Your task to perform on an android device: What's the news in India? Image 0: 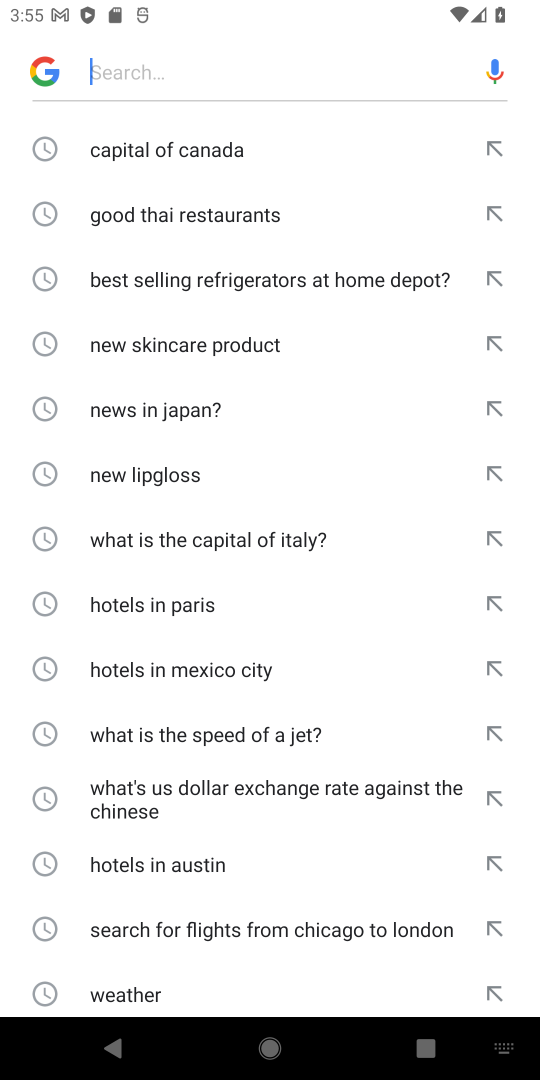
Step 0: click (135, 70)
Your task to perform on an android device: What's the news in India? Image 1: 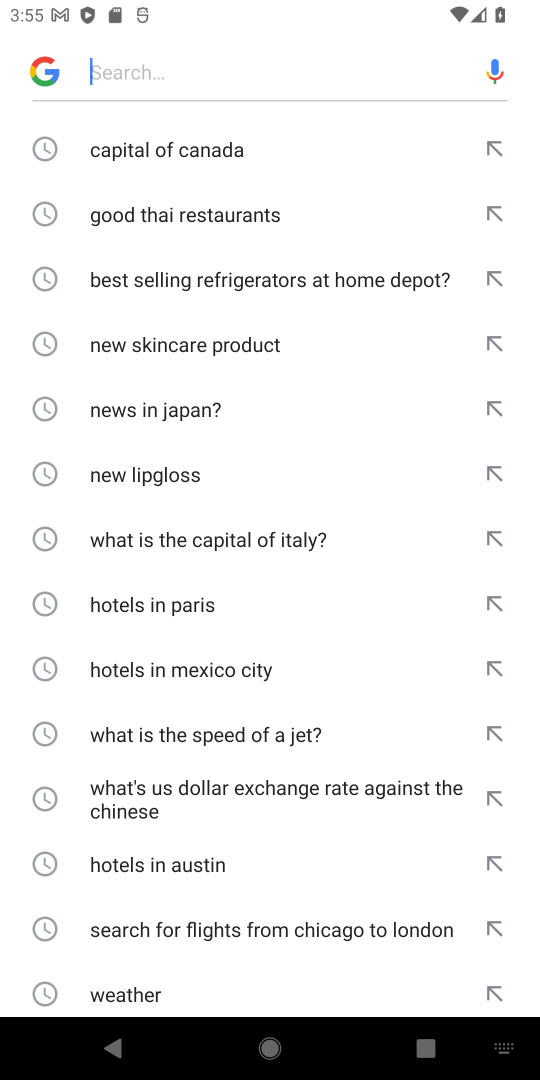
Step 1: type "What's the news in India?"
Your task to perform on an android device: What's the news in India? Image 2: 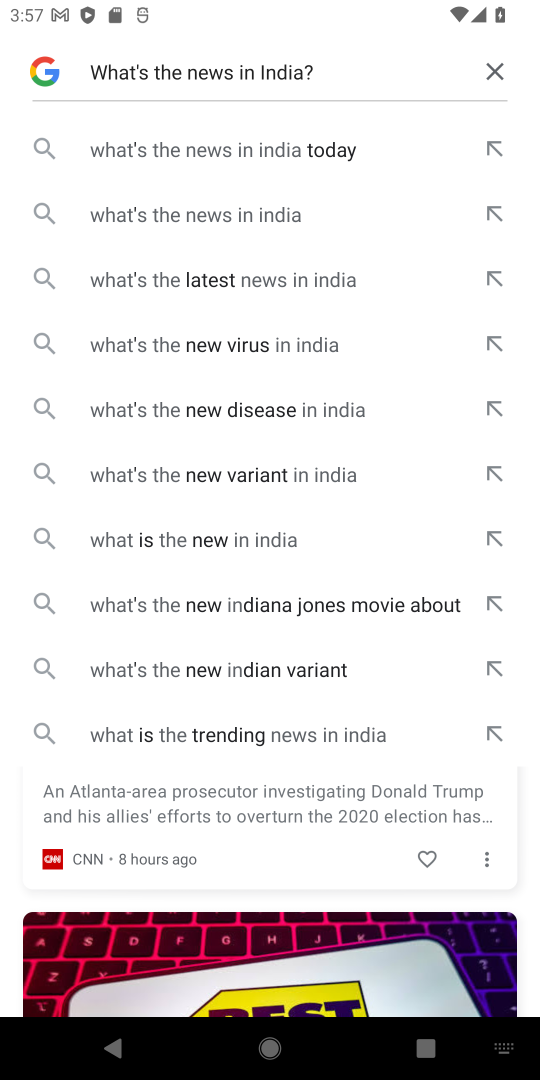
Step 2: click (238, 144)
Your task to perform on an android device: What's the news in India? Image 3: 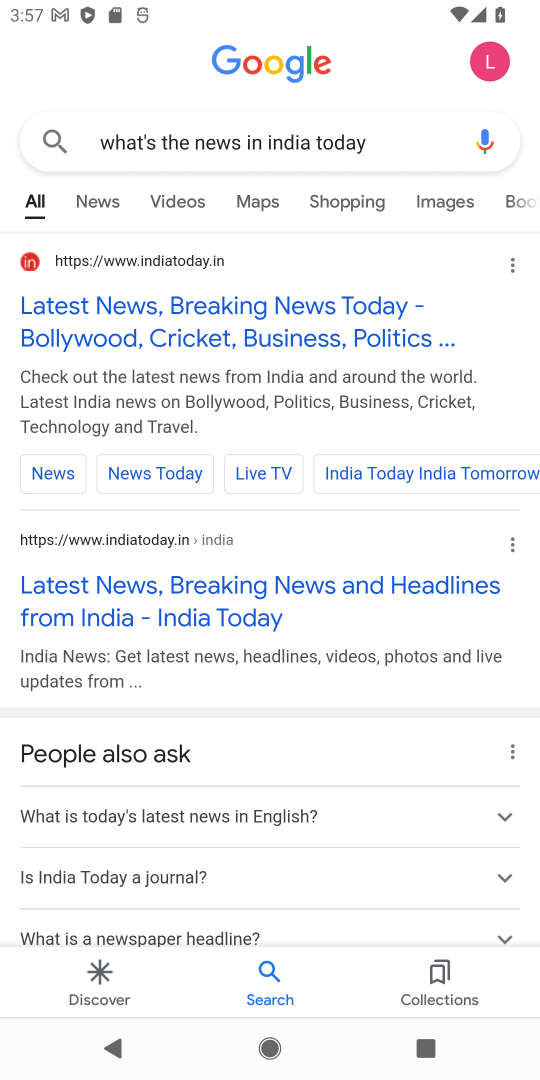
Step 3: task complete